Your task to perform on an android device: Open Reddit.com Image 0: 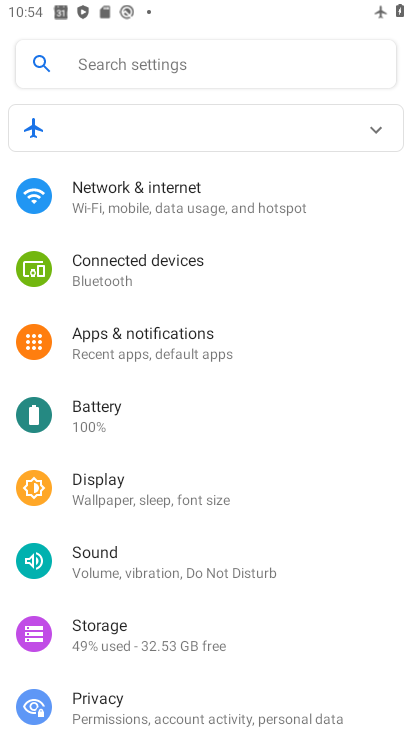
Step 0: press home button
Your task to perform on an android device: Open Reddit.com Image 1: 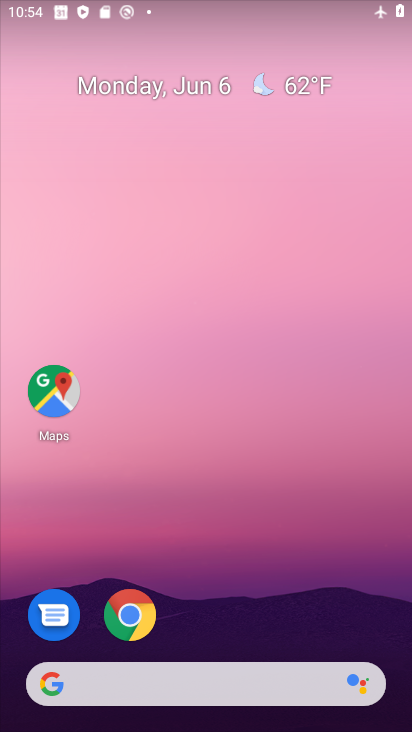
Step 1: click (136, 611)
Your task to perform on an android device: Open Reddit.com Image 2: 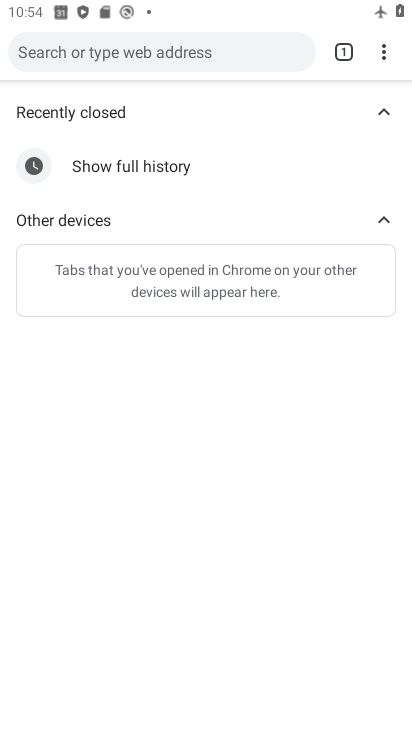
Step 2: click (179, 48)
Your task to perform on an android device: Open Reddit.com Image 3: 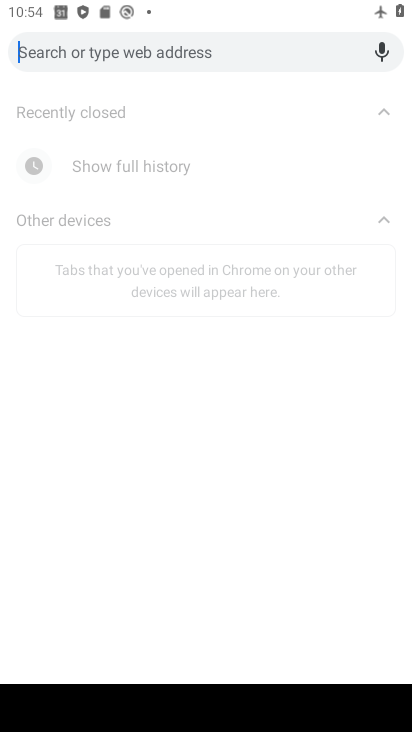
Step 3: type "reddit.com"
Your task to perform on an android device: Open Reddit.com Image 4: 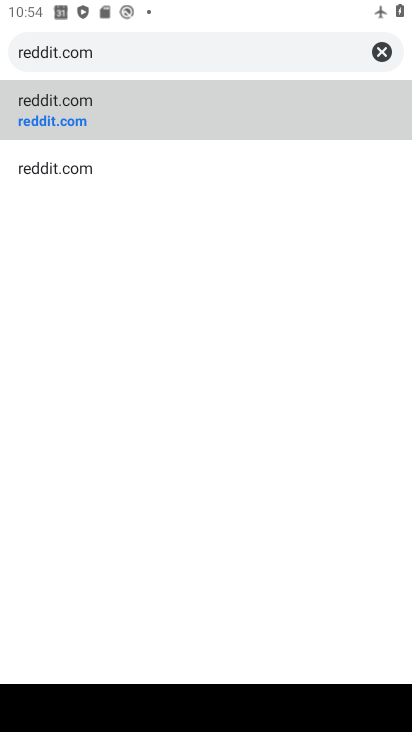
Step 4: click (115, 115)
Your task to perform on an android device: Open Reddit.com Image 5: 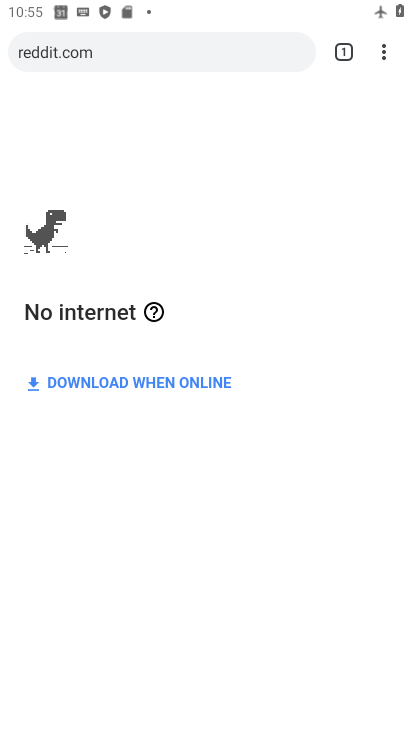
Step 5: task complete